Your task to perform on an android device: Open privacy settings Image 0: 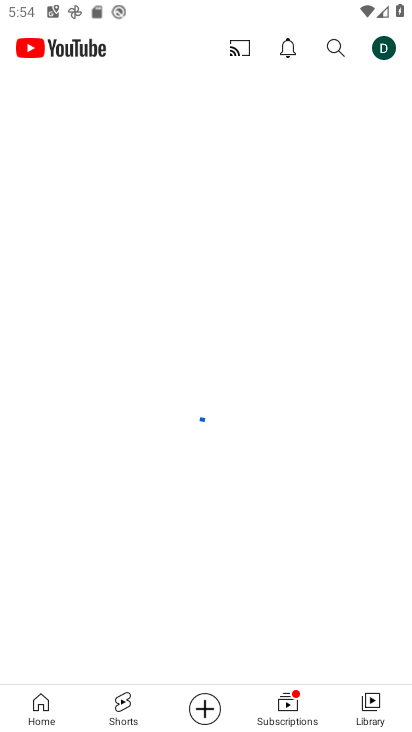
Step 0: drag from (235, 644) to (233, 131)
Your task to perform on an android device: Open privacy settings Image 1: 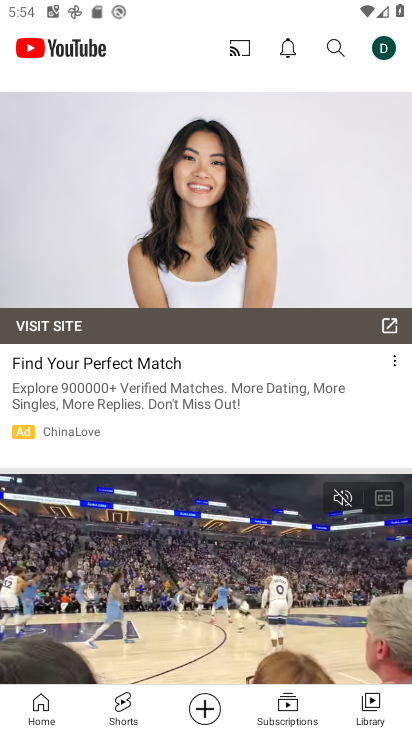
Step 1: press home button
Your task to perform on an android device: Open privacy settings Image 2: 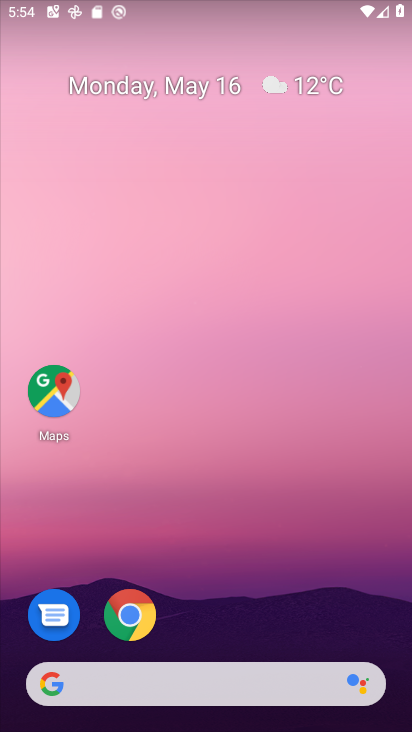
Step 2: drag from (201, 553) to (310, 108)
Your task to perform on an android device: Open privacy settings Image 3: 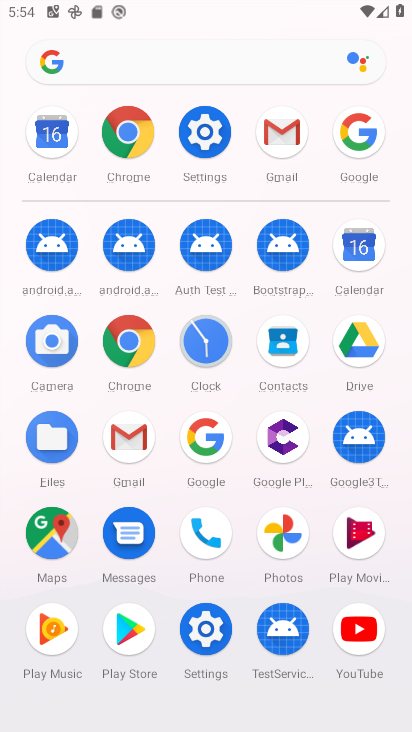
Step 3: click (199, 142)
Your task to perform on an android device: Open privacy settings Image 4: 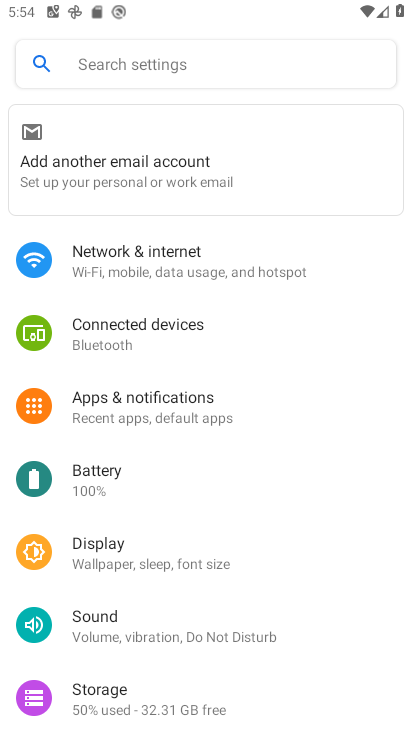
Step 4: drag from (124, 685) to (214, 311)
Your task to perform on an android device: Open privacy settings Image 5: 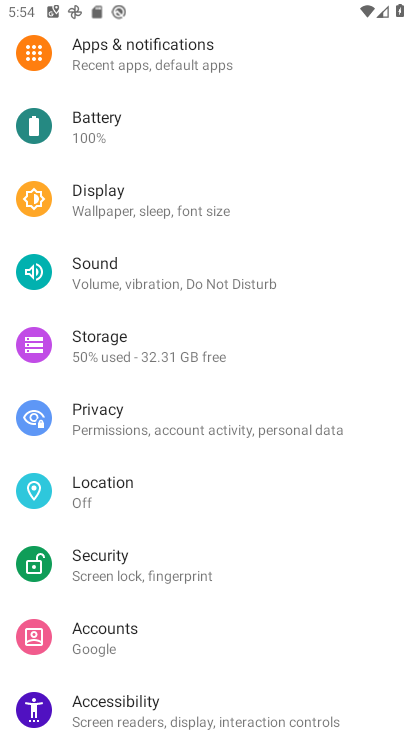
Step 5: click (123, 434)
Your task to perform on an android device: Open privacy settings Image 6: 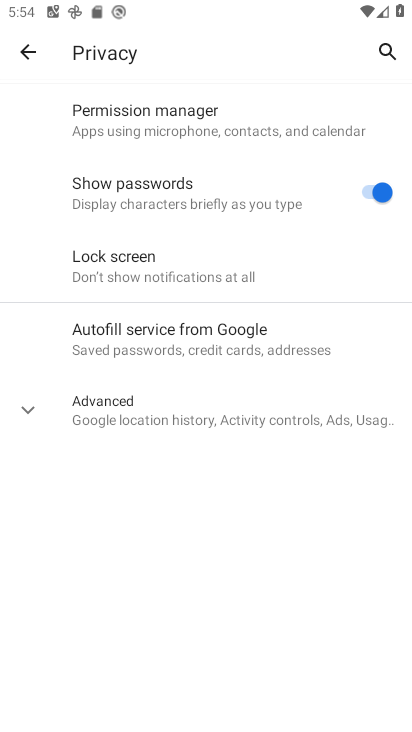
Step 6: task complete